Your task to perform on an android device: Search for Mexican restaurants on Maps Image 0: 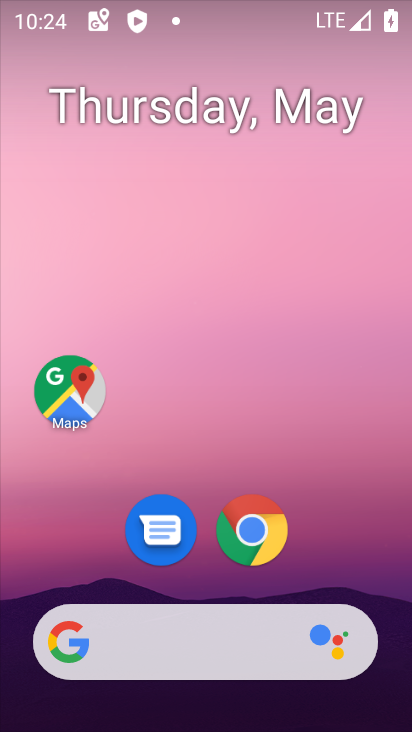
Step 0: click (67, 406)
Your task to perform on an android device: Search for Mexican restaurants on Maps Image 1: 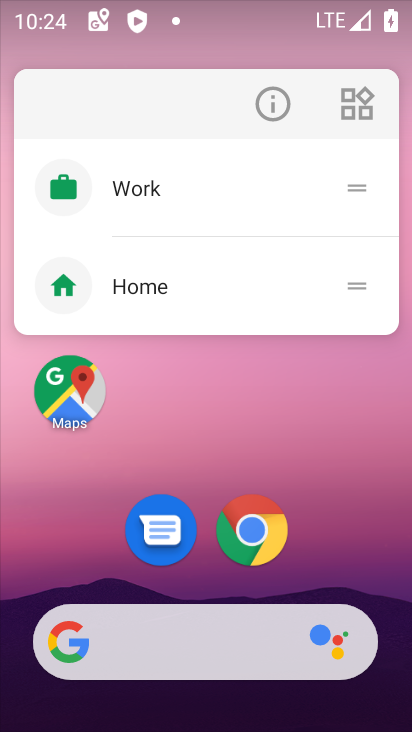
Step 1: click (85, 412)
Your task to perform on an android device: Search for Mexican restaurants on Maps Image 2: 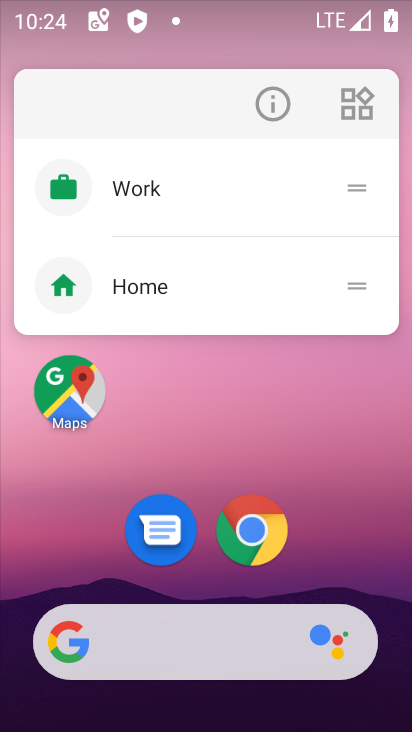
Step 2: click (85, 412)
Your task to perform on an android device: Search for Mexican restaurants on Maps Image 3: 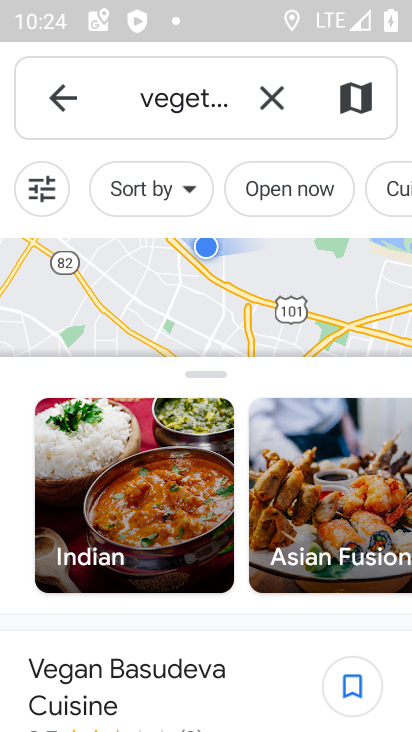
Step 3: click (255, 105)
Your task to perform on an android device: Search for Mexican restaurants on Maps Image 4: 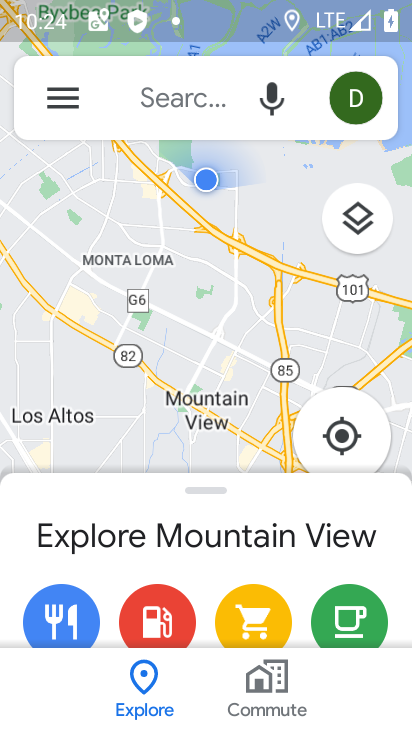
Step 4: click (167, 88)
Your task to perform on an android device: Search for Mexican restaurants on Maps Image 5: 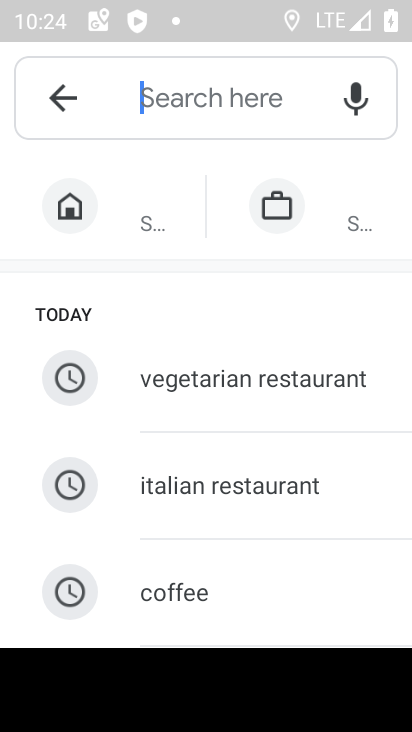
Step 5: drag from (219, 587) to (267, 190)
Your task to perform on an android device: Search for Mexican restaurants on Maps Image 6: 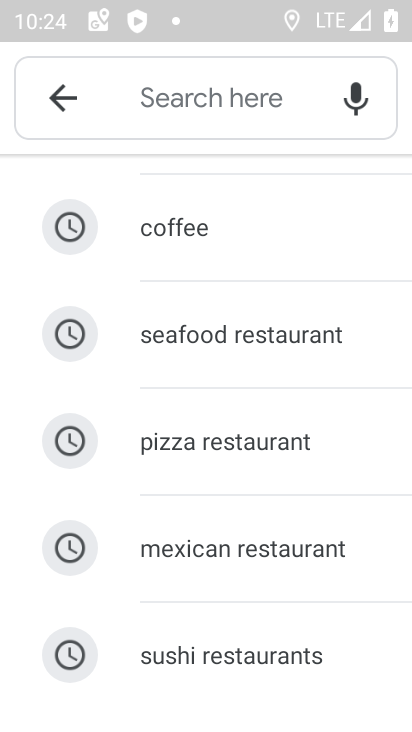
Step 6: click (216, 552)
Your task to perform on an android device: Search for Mexican restaurants on Maps Image 7: 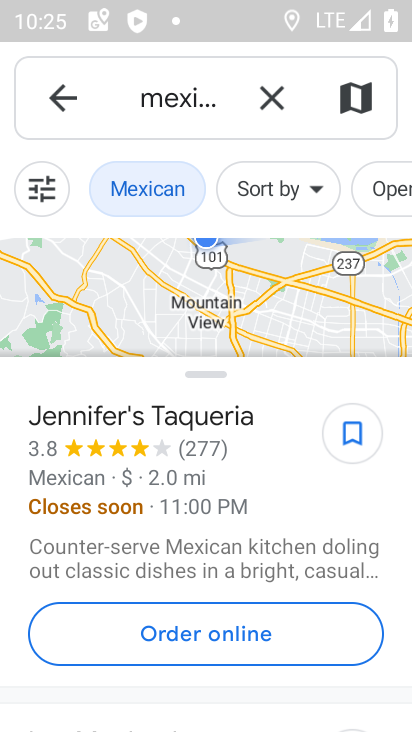
Step 7: task complete